Your task to perform on an android device: Open Chrome and go to the settings page Image 0: 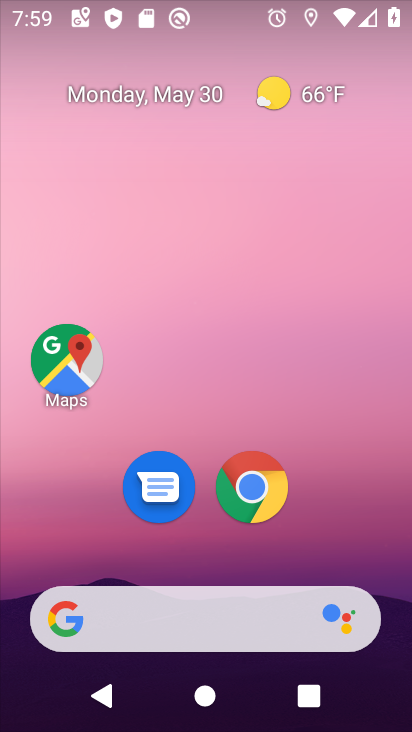
Step 0: press home button
Your task to perform on an android device: Open Chrome and go to the settings page Image 1: 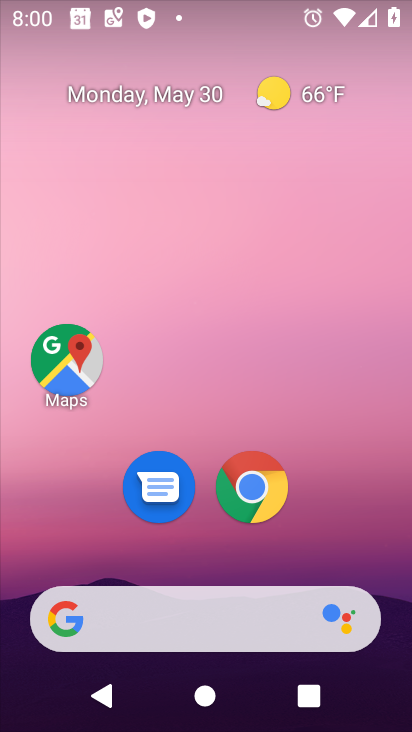
Step 1: drag from (338, 519) to (343, 35)
Your task to perform on an android device: Open Chrome and go to the settings page Image 2: 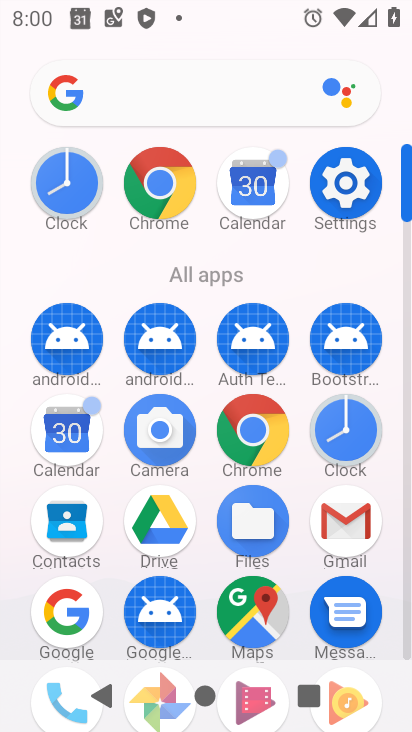
Step 2: click (155, 184)
Your task to perform on an android device: Open Chrome and go to the settings page Image 3: 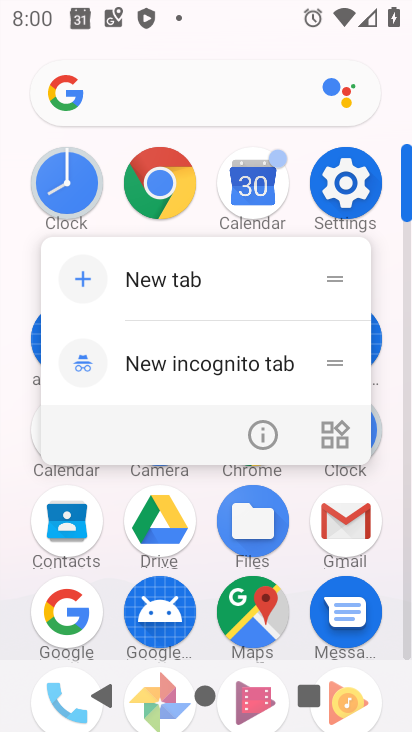
Step 3: click (167, 190)
Your task to perform on an android device: Open Chrome and go to the settings page Image 4: 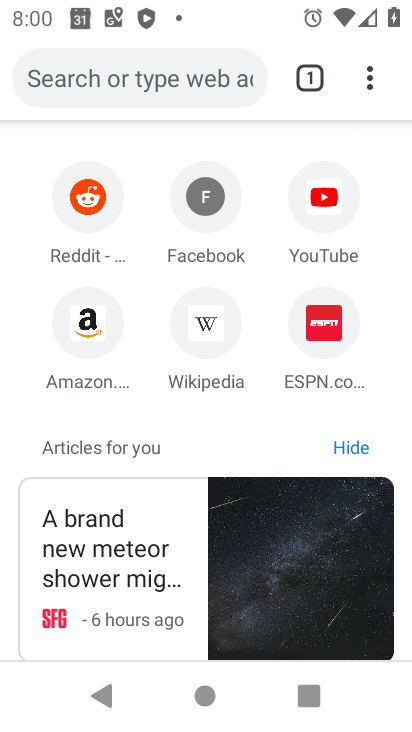
Step 4: task complete